Your task to perform on an android device: Is it going to rain this weekend? Image 0: 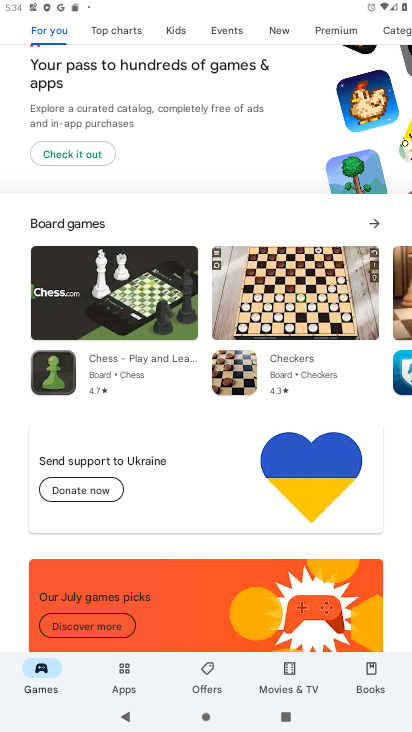
Step 0: press home button
Your task to perform on an android device: Is it going to rain this weekend? Image 1: 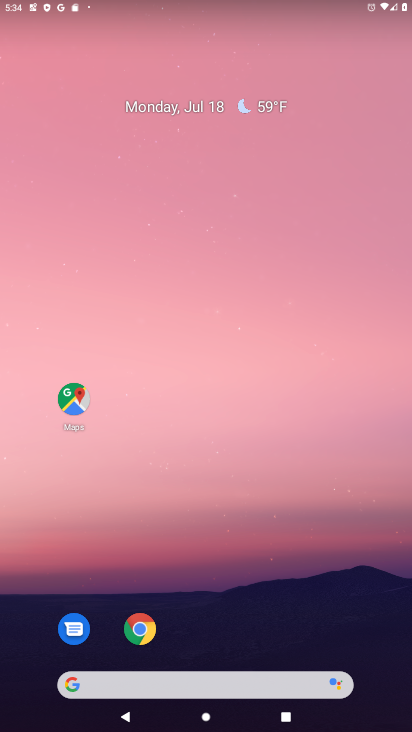
Step 1: drag from (307, 645) to (254, 137)
Your task to perform on an android device: Is it going to rain this weekend? Image 2: 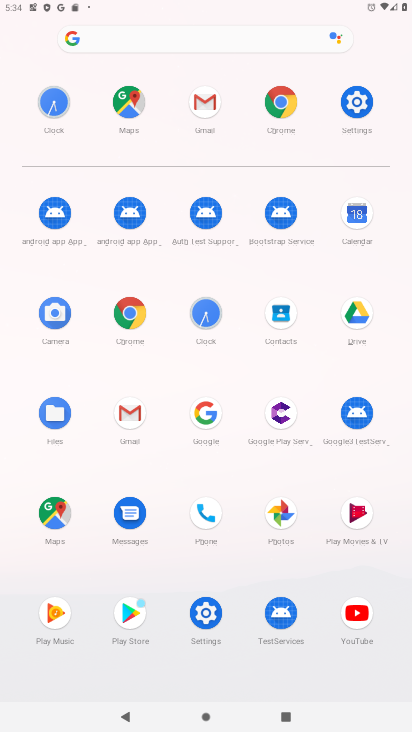
Step 2: click (281, 96)
Your task to perform on an android device: Is it going to rain this weekend? Image 3: 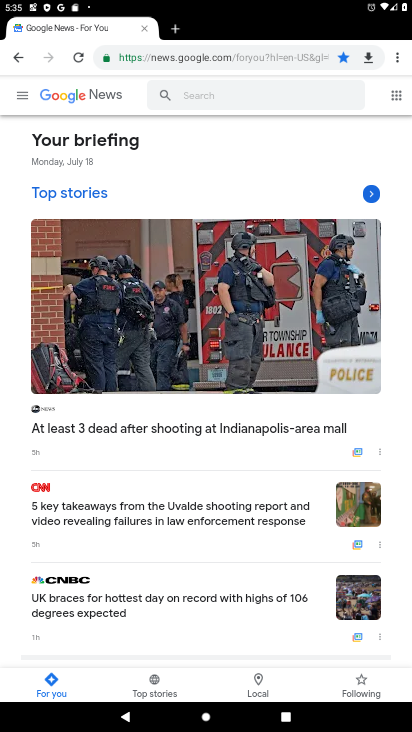
Step 3: click (201, 64)
Your task to perform on an android device: Is it going to rain this weekend? Image 4: 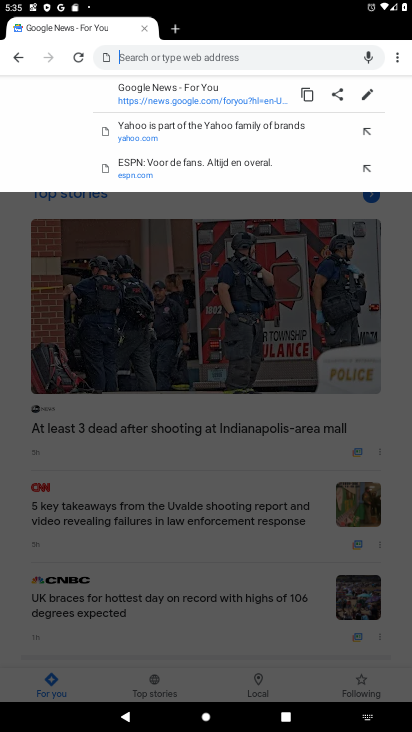
Step 4: type "weather"
Your task to perform on an android device: Is it going to rain this weekend? Image 5: 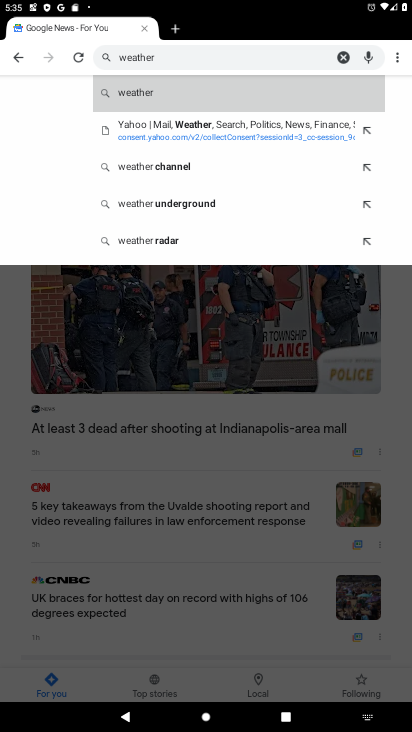
Step 5: click (141, 93)
Your task to perform on an android device: Is it going to rain this weekend? Image 6: 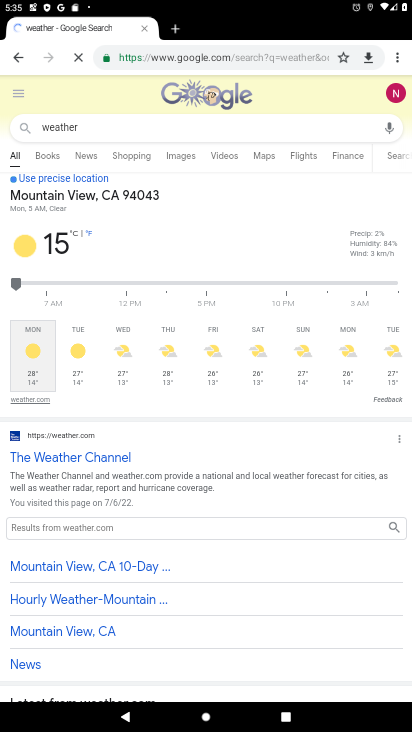
Step 6: click (264, 357)
Your task to perform on an android device: Is it going to rain this weekend? Image 7: 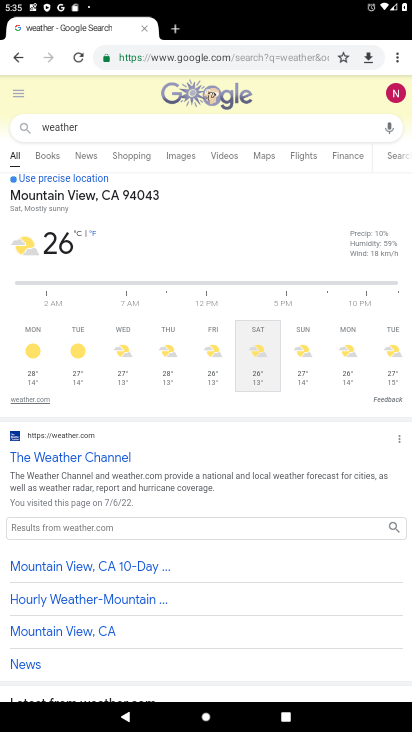
Step 7: task complete